Your task to perform on an android device: change the clock style Image 0: 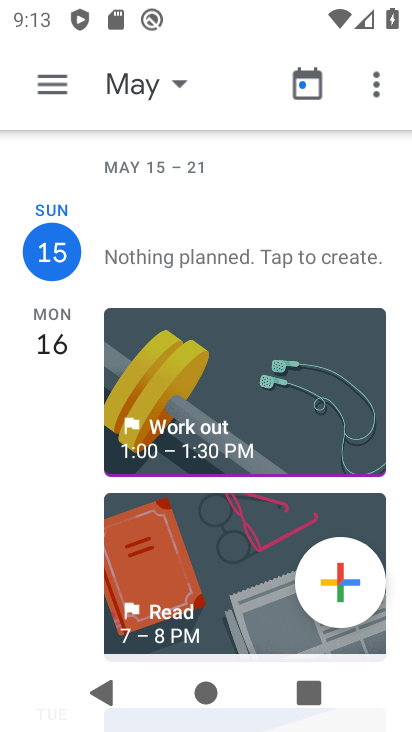
Step 0: press home button
Your task to perform on an android device: change the clock style Image 1: 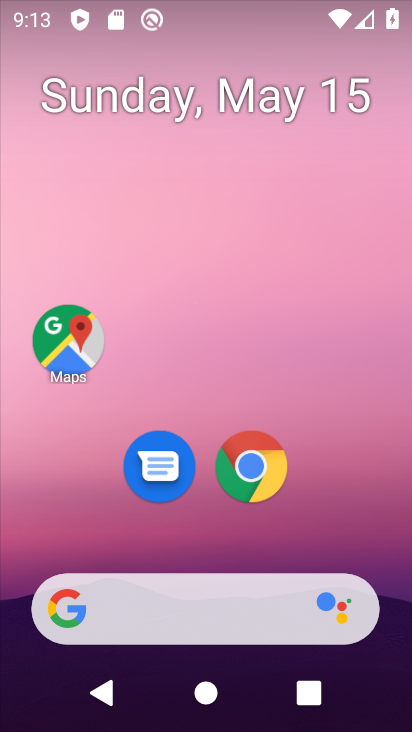
Step 1: drag from (330, 358) to (257, 23)
Your task to perform on an android device: change the clock style Image 2: 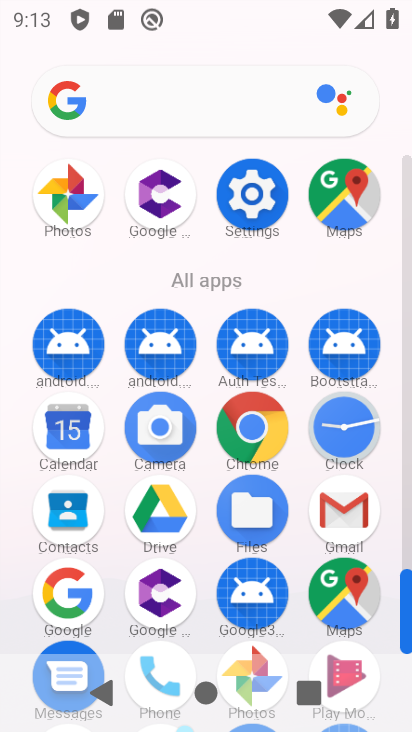
Step 2: click (344, 420)
Your task to perform on an android device: change the clock style Image 3: 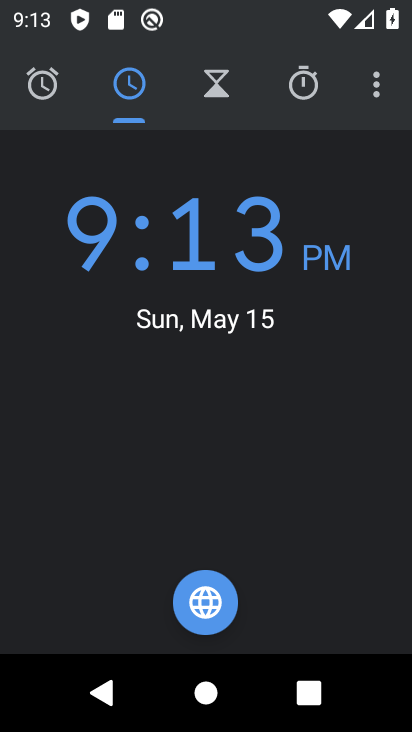
Step 3: click (380, 83)
Your task to perform on an android device: change the clock style Image 4: 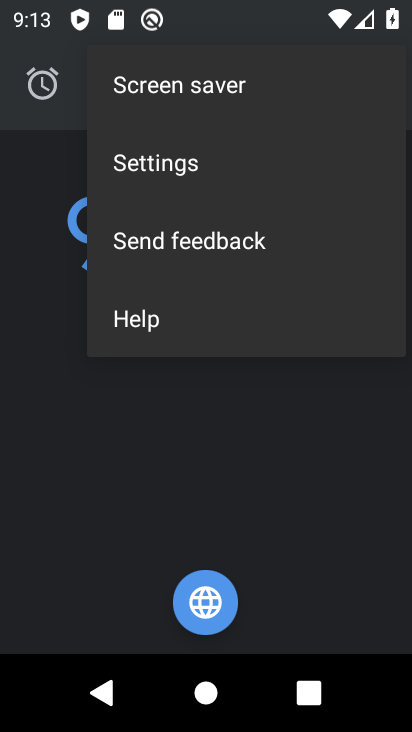
Step 4: click (171, 183)
Your task to perform on an android device: change the clock style Image 5: 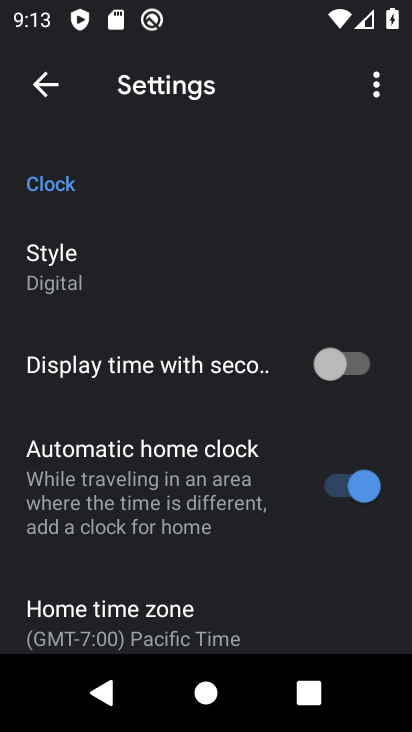
Step 5: click (56, 253)
Your task to perform on an android device: change the clock style Image 6: 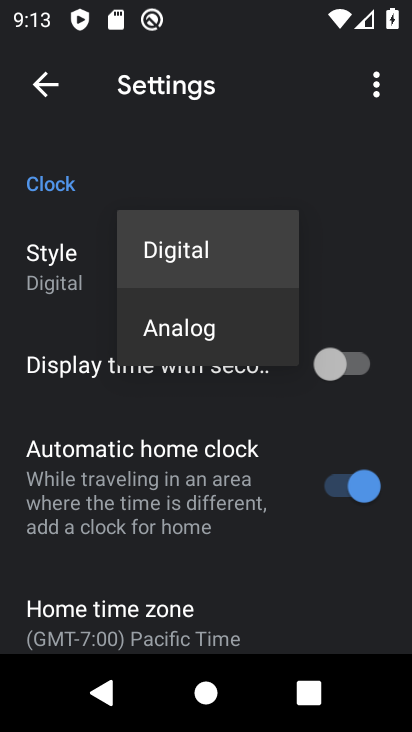
Step 6: click (208, 326)
Your task to perform on an android device: change the clock style Image 7: 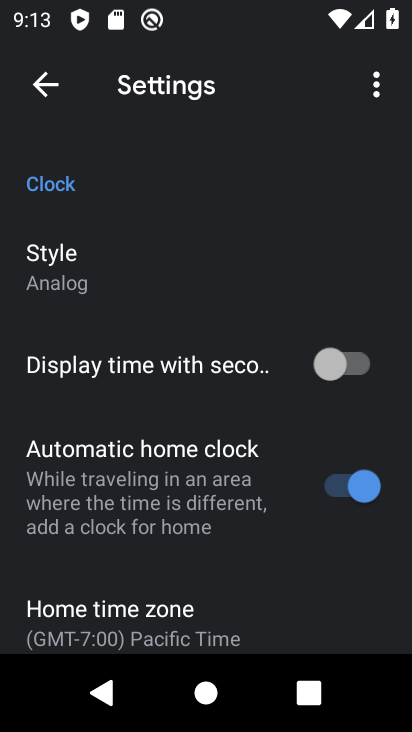
Step 7: task complete